Your task to perform on an android device: turn on data saver in the chrome app Image 0: 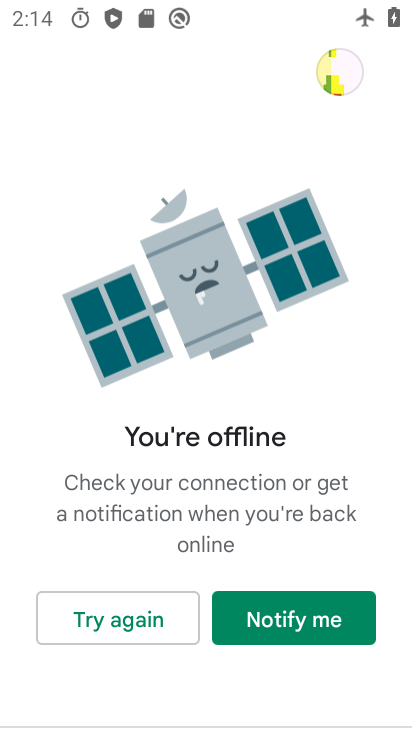
Step 0: press home button
Your task to perform on an android device: turn on data saver in the chrome app Image 1: 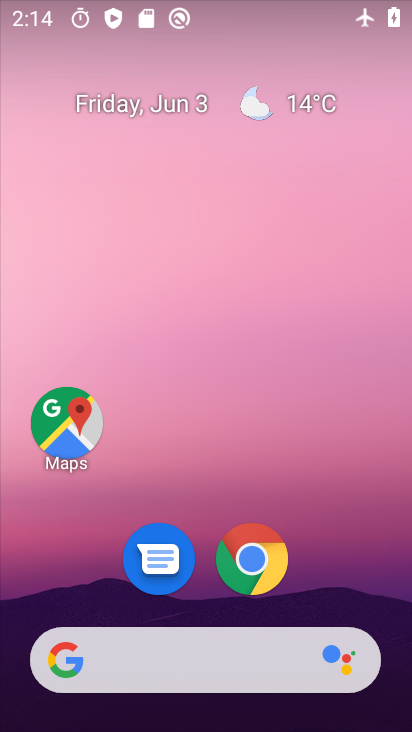
Step 1: click (245, 566)
Your task to perform on an android device: turn on data saver in the chrome app Image 2: 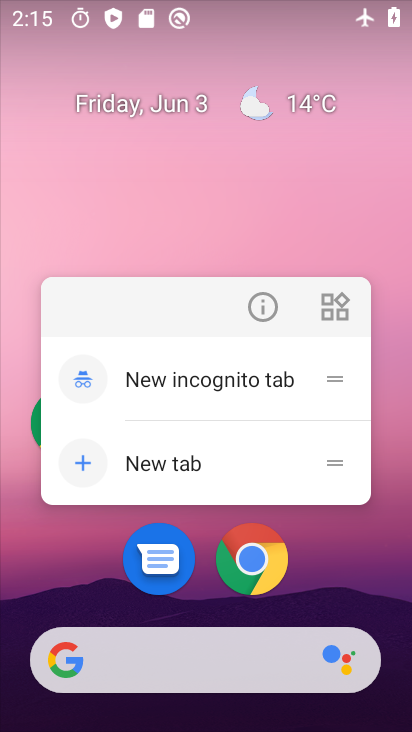
Step 2: click (218, 572)
Your task to perform on an android device: turn on data saver in the chrome app Image 3: 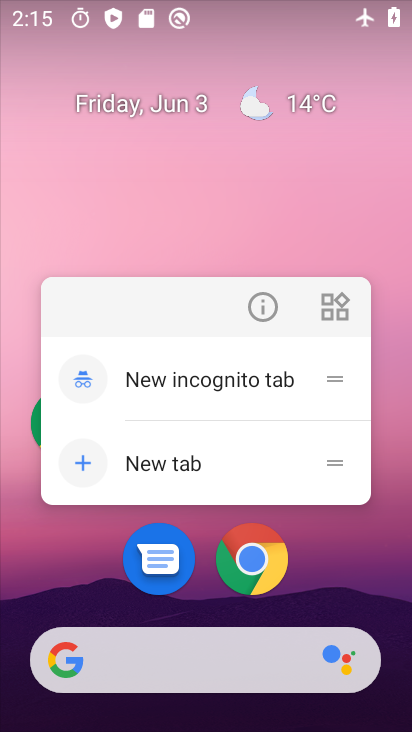
Step 3: click (235, 571)
Your task to perform on an android device: turn on data saver in the chrome app Image 4: 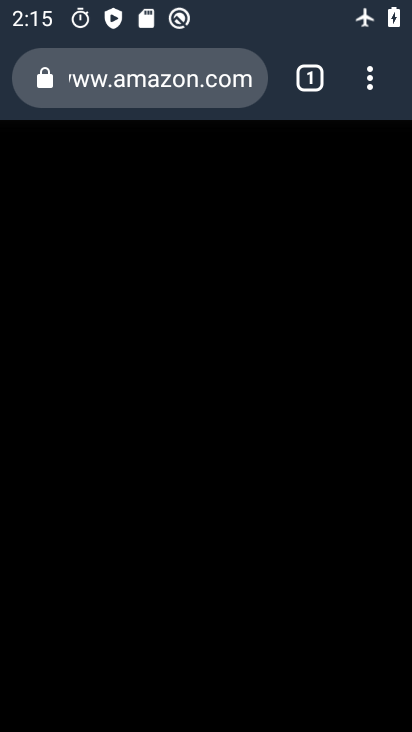
Step 4: drag from (370, 84) to (106, 634)
Your task to perform on an android device: turn on data saver in the chrome app Image 5: 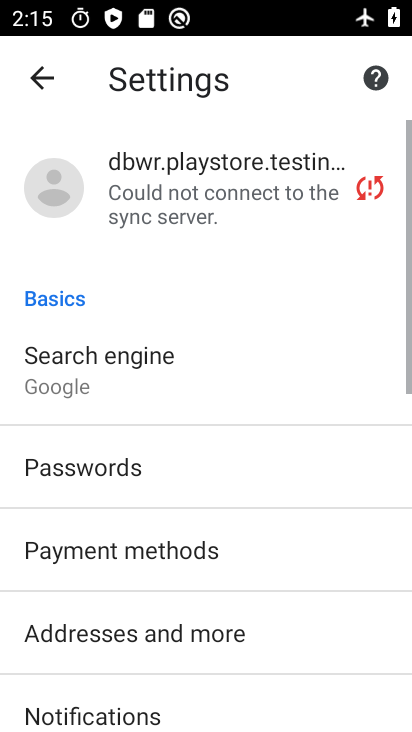
Step 5: drag from (108, 611) to (66, 90)
Your task to perform on an android device: turn on data saver in the chrome app Image 6: 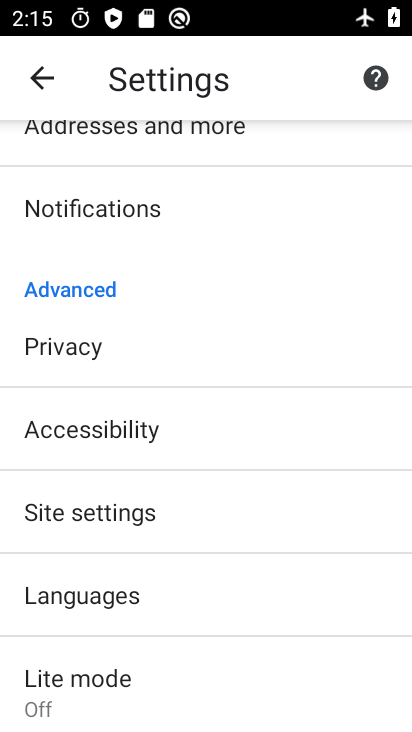
Step 6: click (108, 681)
Your task to perform on an android device: turn on data saver in the chrome app Image 7: 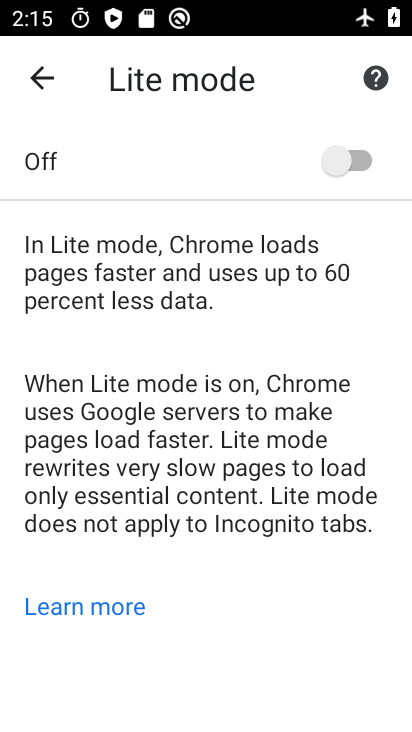
Step 7: click (341, 163)
Your task to perform on an android device: turn on data saver in the chrome app Image 8: 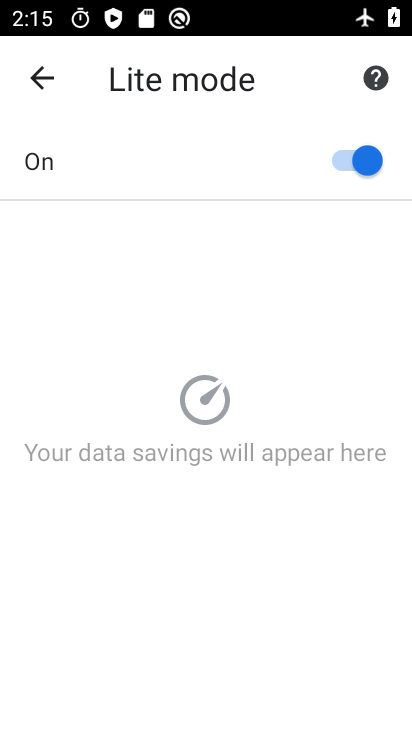
Step 8: task complete